Your task to perform on an android device: When is my next appointment? Image 0: 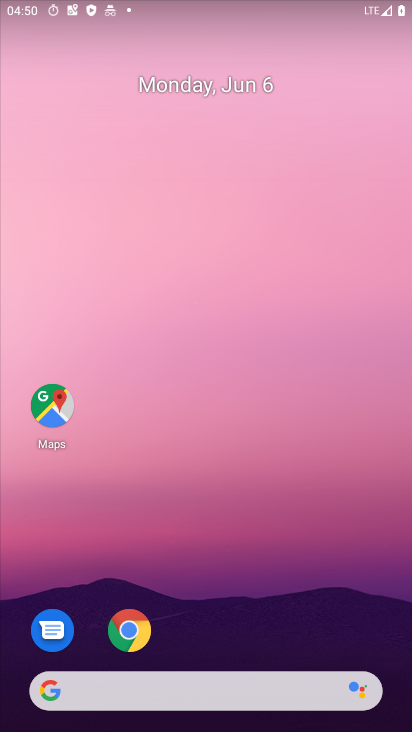
Step 0: drag from (269, 620) to (272, 87)
Your task to perform on an android device: When is my next appointment? Image 1: 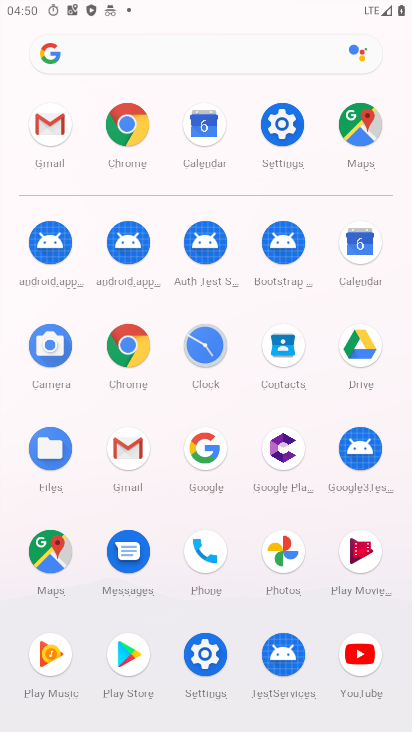
Step 1: click (211, 129)
Your task to perform on an android device: When is my next appointment? Image 2: 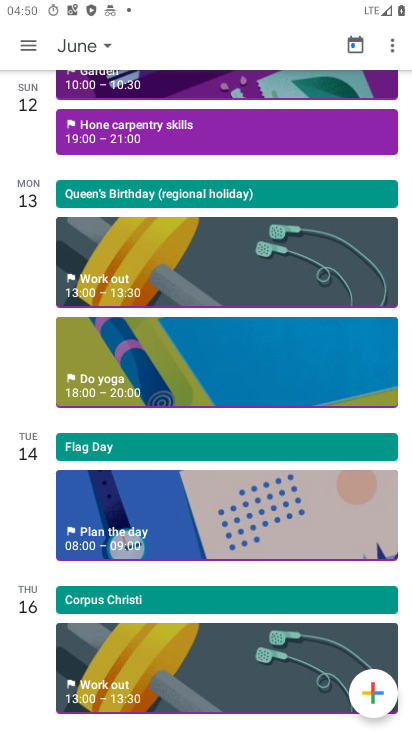
Step 2: task complete